Your task to perform on an android device: Open the web browser Image 0: 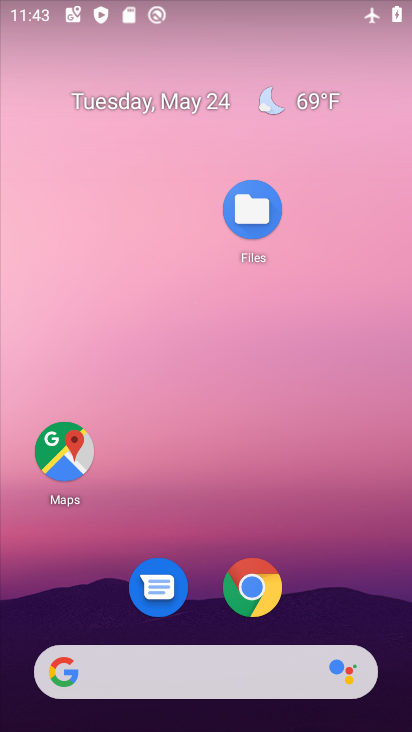
Step 0: click (242, 602)
Your task to perform on an android device: Open the web browser Image 1: 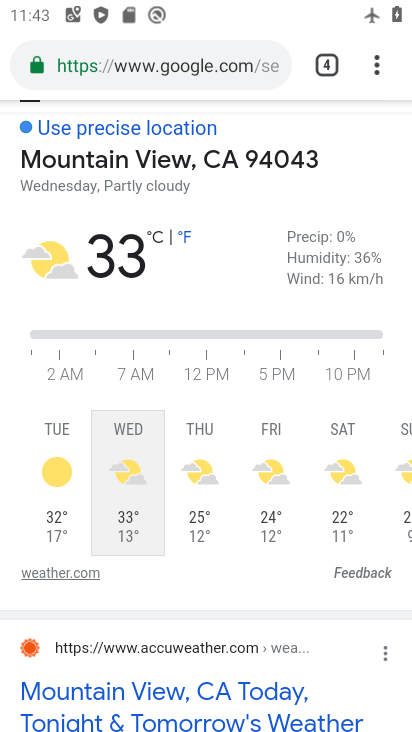
Step 1: task complete